Your task to perform on an android device: What's the weather today? Image 0: 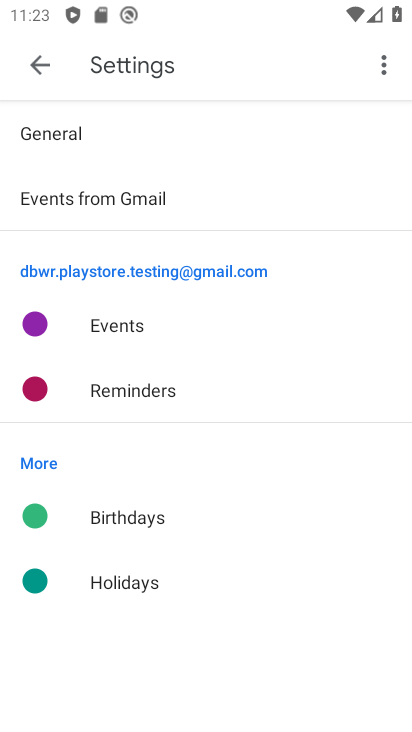
Step 0: press home button
Your task to perform on an android device: What's the weather today? Image 1: 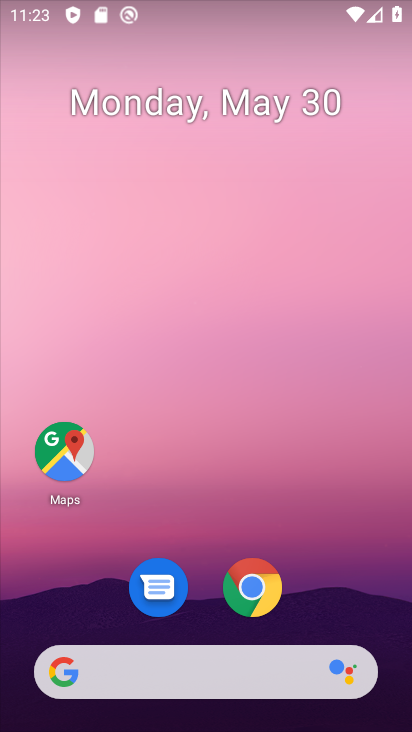
Step 1: click (198, 664)
Your task to perform on an android device: What's the weather today? Image 2: 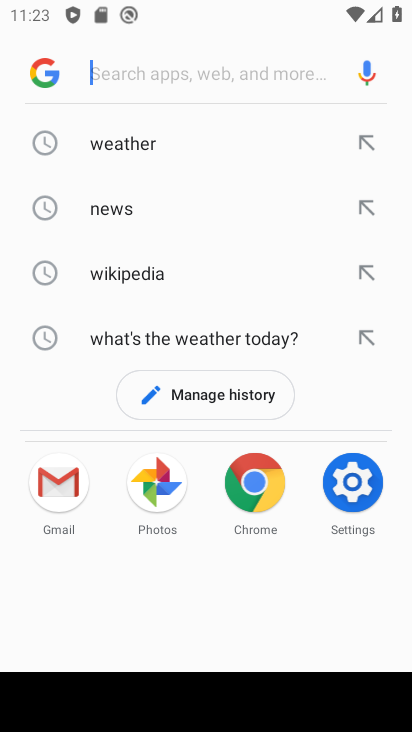
Step 2: click (146, 136)
Your task to perform on an android device: What's the weather today? Image 3: 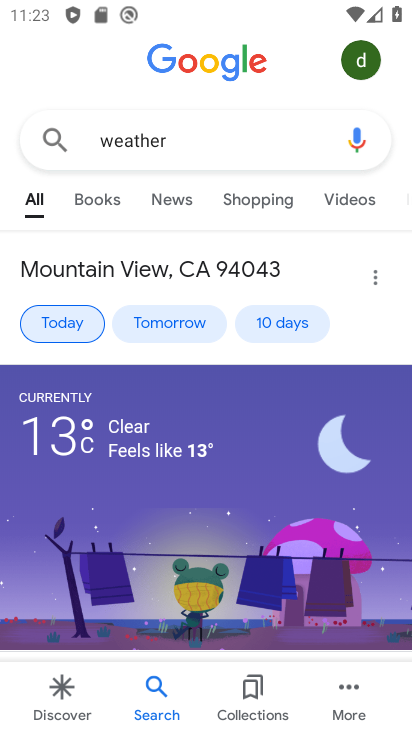
Step 3: task complete